Your task to perform on an android device: empty trash in the gmail app Image 0: 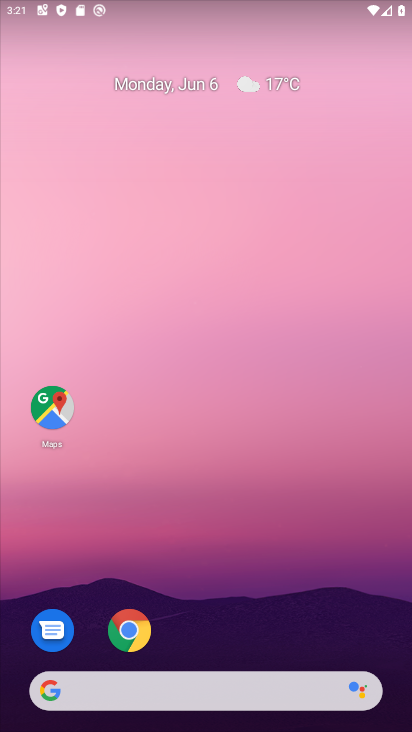
Step 0: drag from (229, 626) to (229, 134)
Your task to perform on an android device: empty trash in the gmail app Image 1: 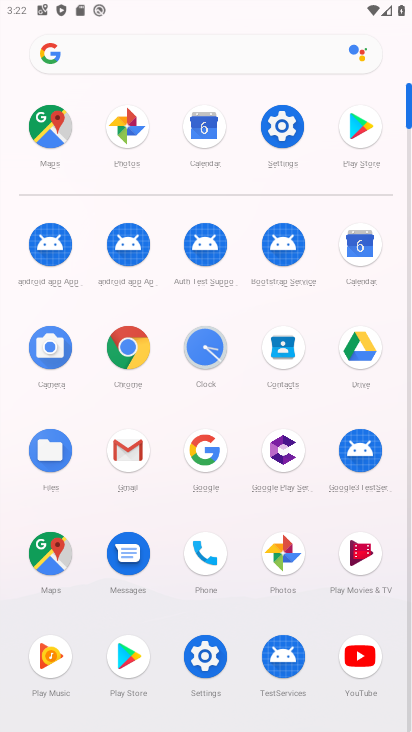
Step 1: click (117, 440)
Your task to perform on an android device: empty trash in the gmail app Image 2: 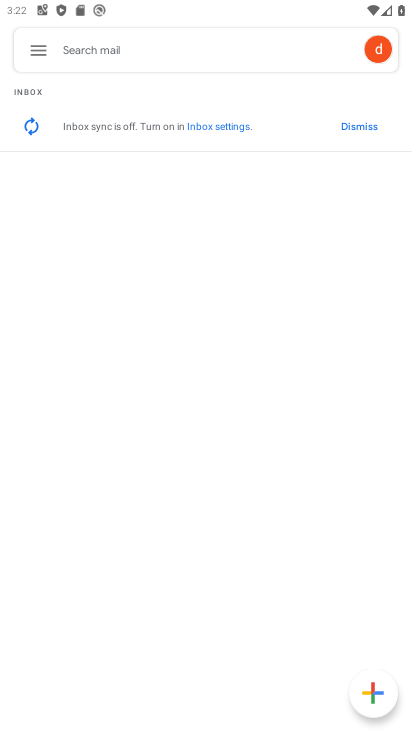
Step 2: click (33, 40)
Your task to perform on an android device: empty trash in the gmail app Image 3: 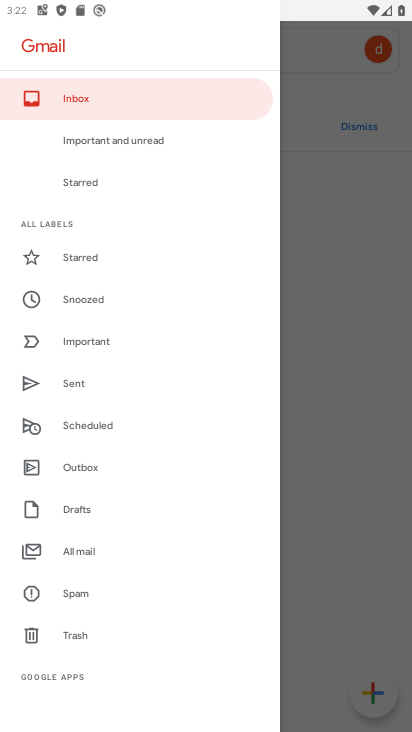
Step 3: click (79, 627)
Your task to perform on an android device: empty trash in the gmail app Image 4: 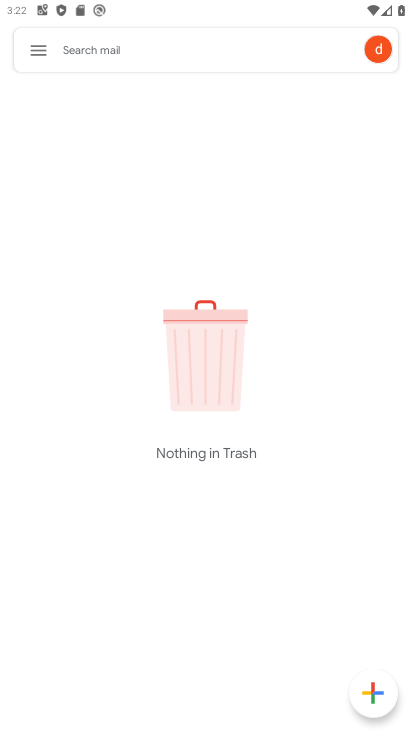
Step 4: task complete